Your task to perform on an android device: Open Maps and search for coffee Image 0: 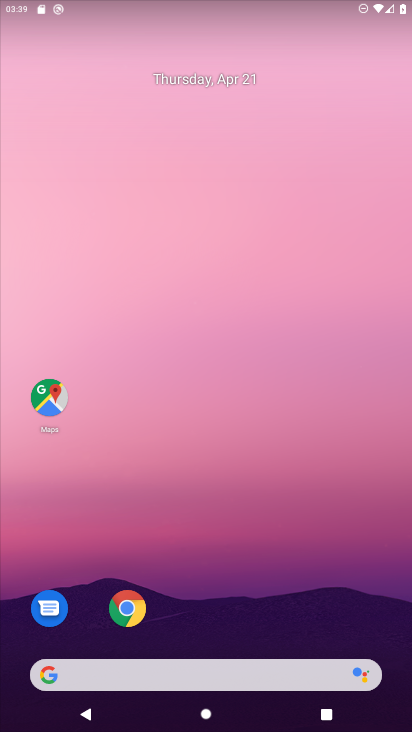
Step 0: drag from (308, 595) to (298, 187)
Your task to perform on an android device: Open Maps and search for coffee Image 1: 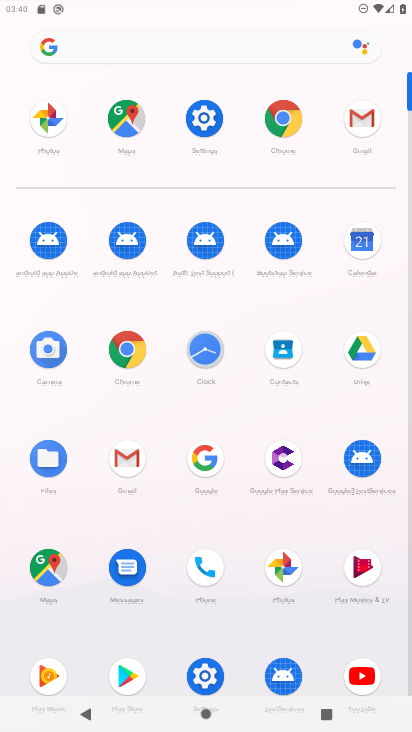
Step 1: click (122, 120)
Your task to perform on an android device: Open Maps and search for coffee Image 2: 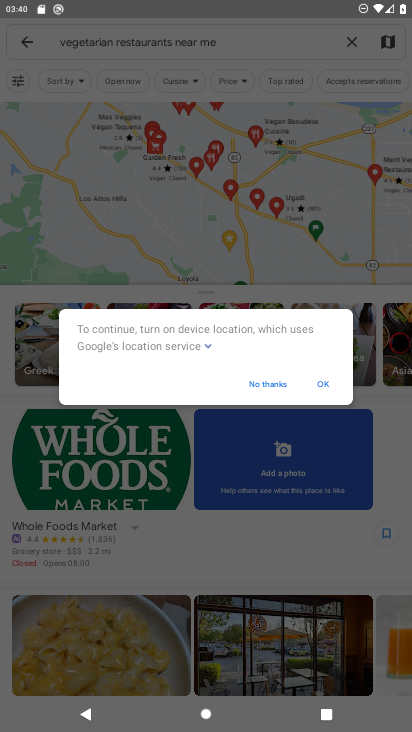
Step 2: click (274, 388)
Your task to perform on an android device: Open Maps and search for coffee Image 3: 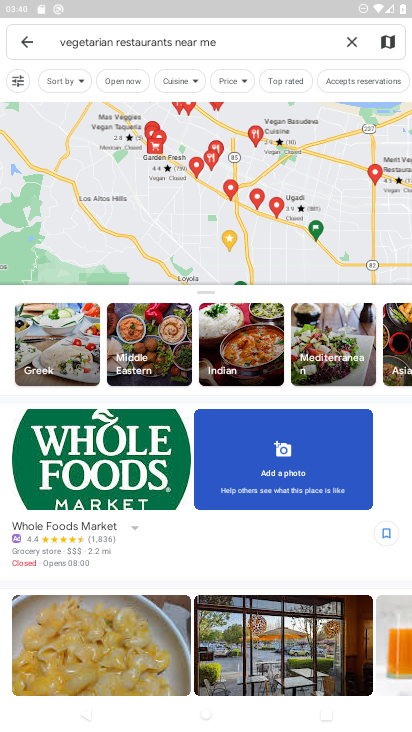
Step 3: click (350, 42)
Your task to perform on an android device: Open Maps and search for coffee Image 4: 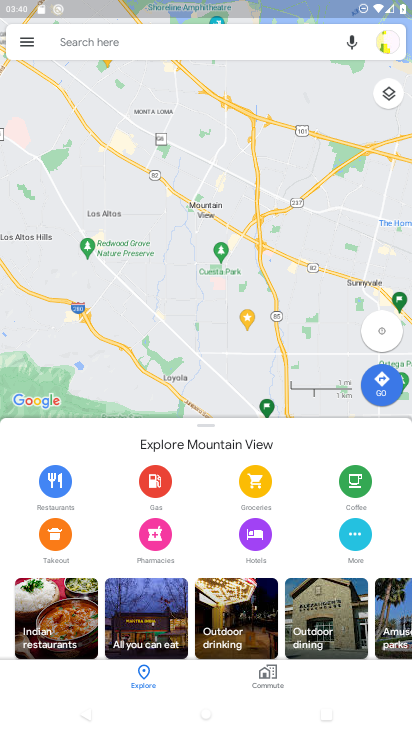
Step 4: click (244, 36)
Your task to perform on an android device: Open Maps and search for coffee Image 5: 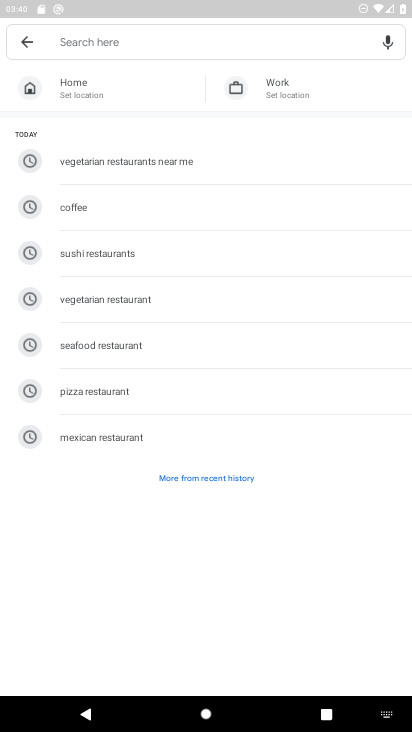
Step 5: click (263, 44)
Your task to perform on an android device: Open Maps and search for coffee Image 6: 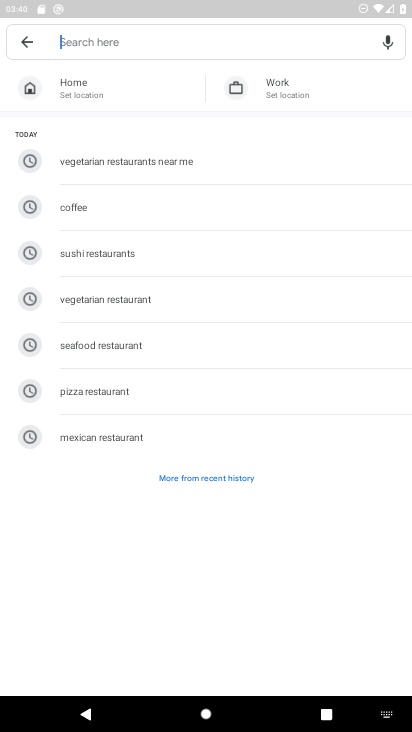
Step 6: type " coffee"
Your task to perform on an android device: Open Maps and search for coffee Image 7: 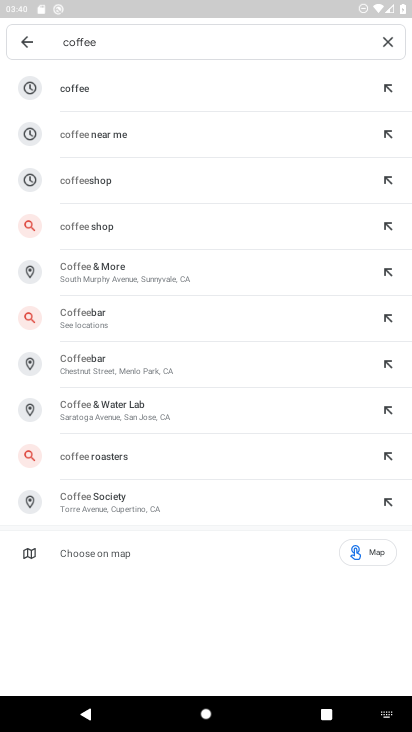
Step 7: click (138, 83)
Your task to perform on an android device: Open Maps and search for coffee Image 8: 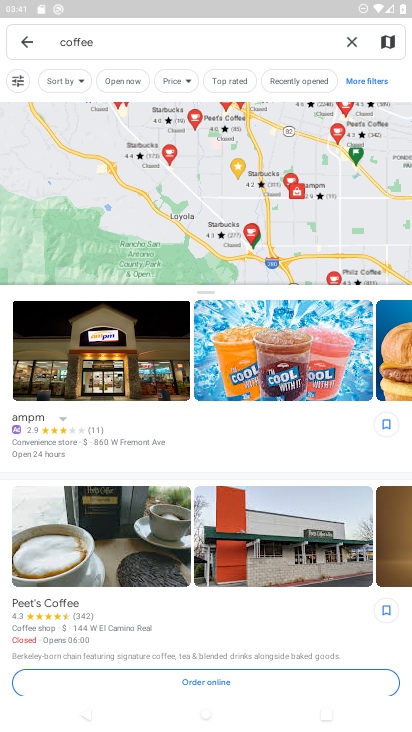
Step 8: task complete